Your task to perform on an android device: Do I have any events today? Image 0: 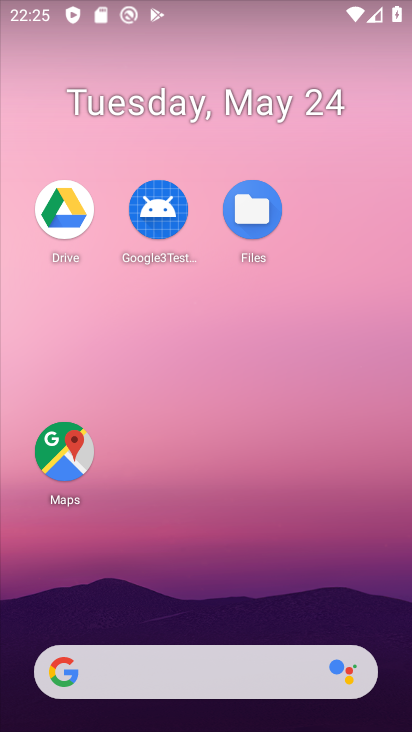
Step 0: drag from (194, 639) to (251, 22)
Your task to perform on an android device: Do I have any events today? Image 1: 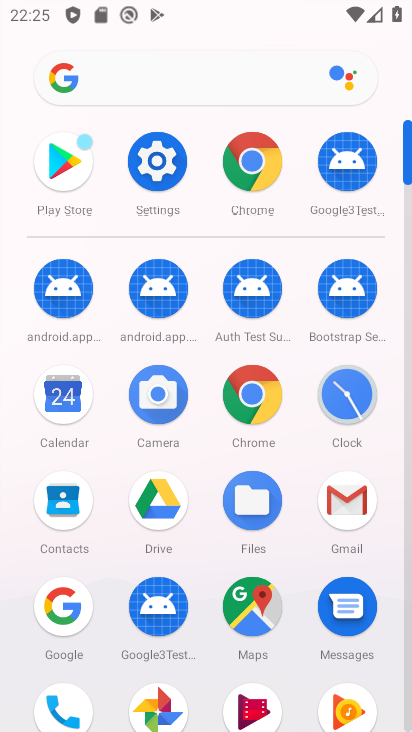
Step 1: click (68, 403)
Your task to perform on an android device: Do I have any events today? Image 2: 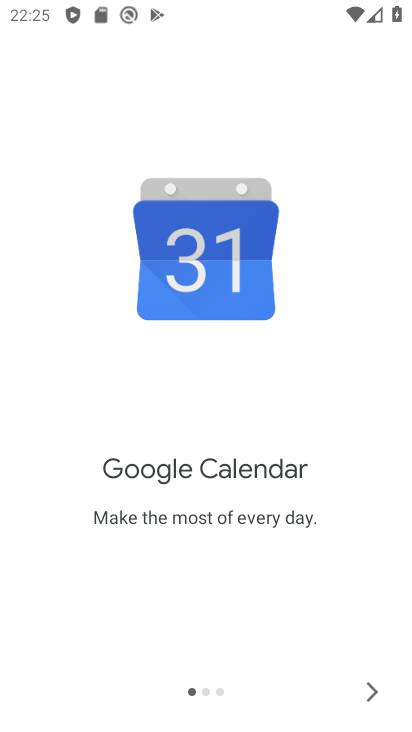
Step 2: click (378, 682)
Your task to perform on an android device: Do I have any events today? Image 3: 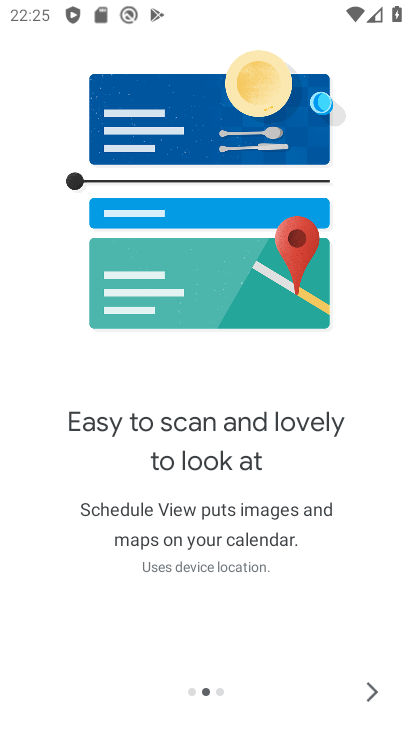
Step 3: click (378, 682)
Your task to perform on an android device: Do I have any events today? Image 4: 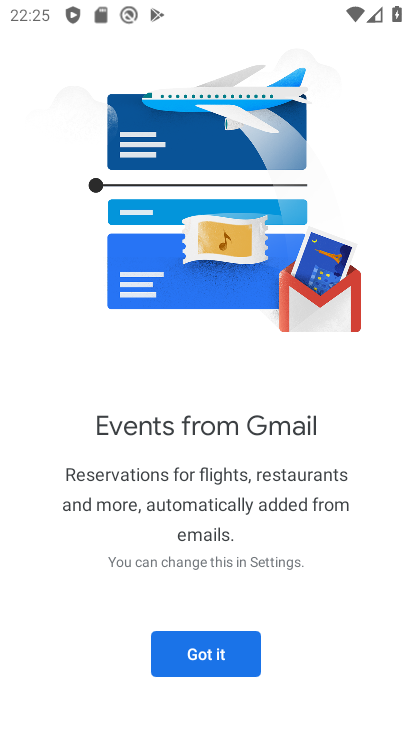
Step 4: click (233, 653)
Your task to perform on an android device: Do I have any events today? Image 5: 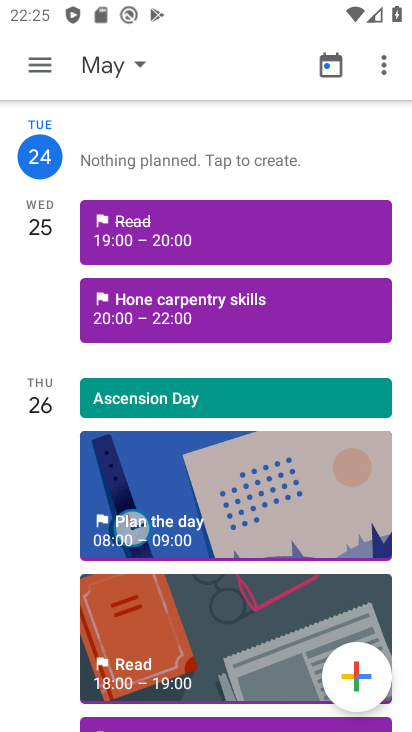
Step 5: click (39, 154)
Your task to perform on an android device: Do I have any events today? Image 6: 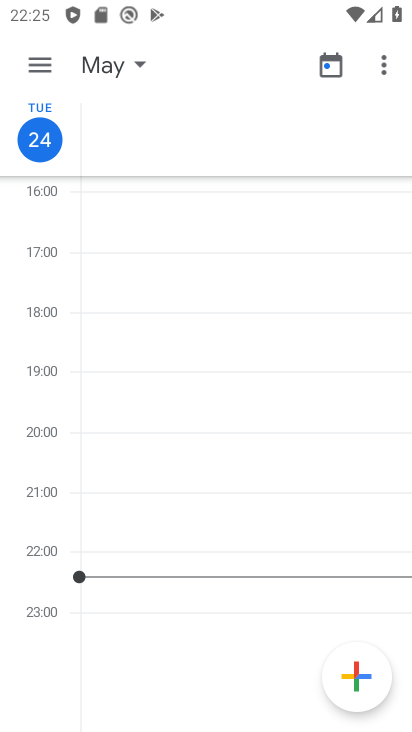
Step 6: task complete